Your task to perform on an android device: Go to sound settings Image 0: 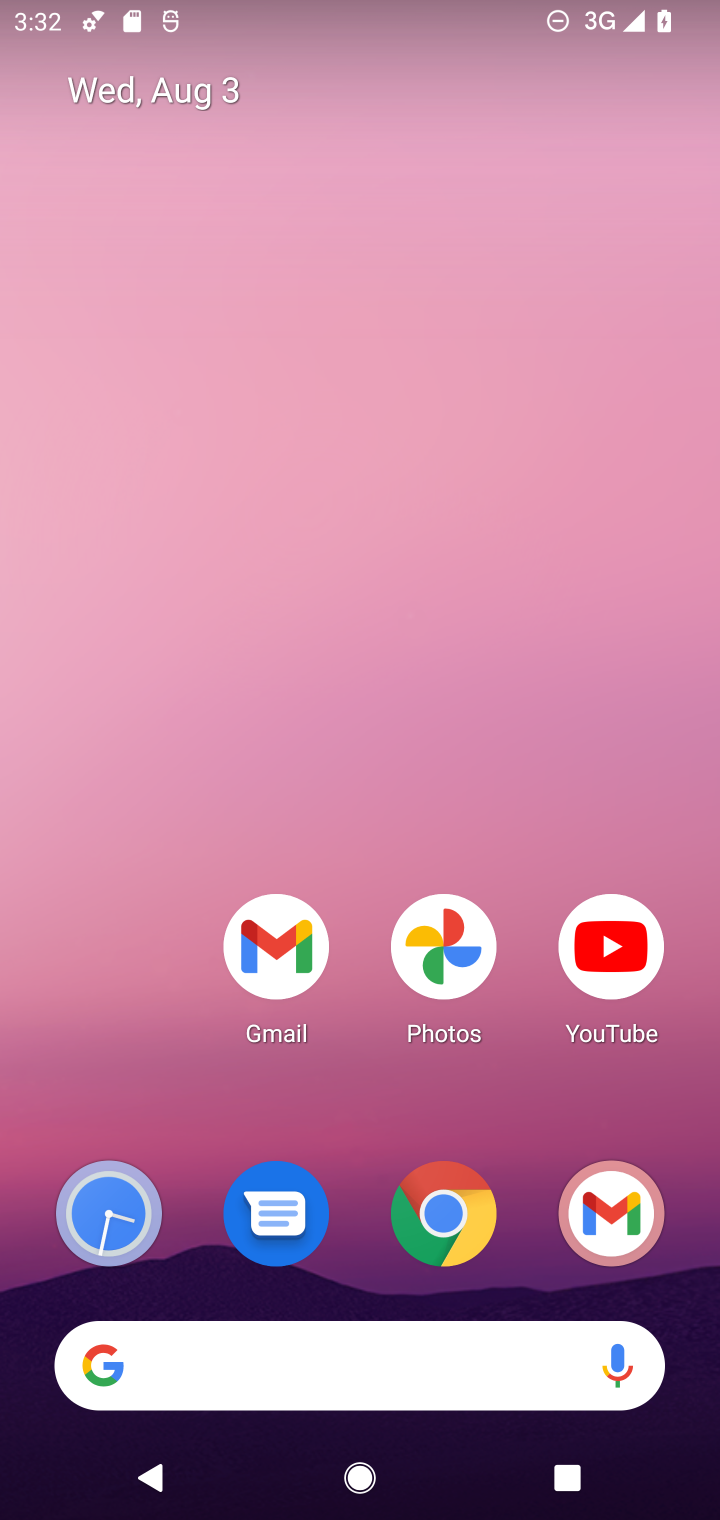
Step 0: drag from (456, 1158) to (541, 251)
Your task to perform on an android device: Go to sound settings Image 1: 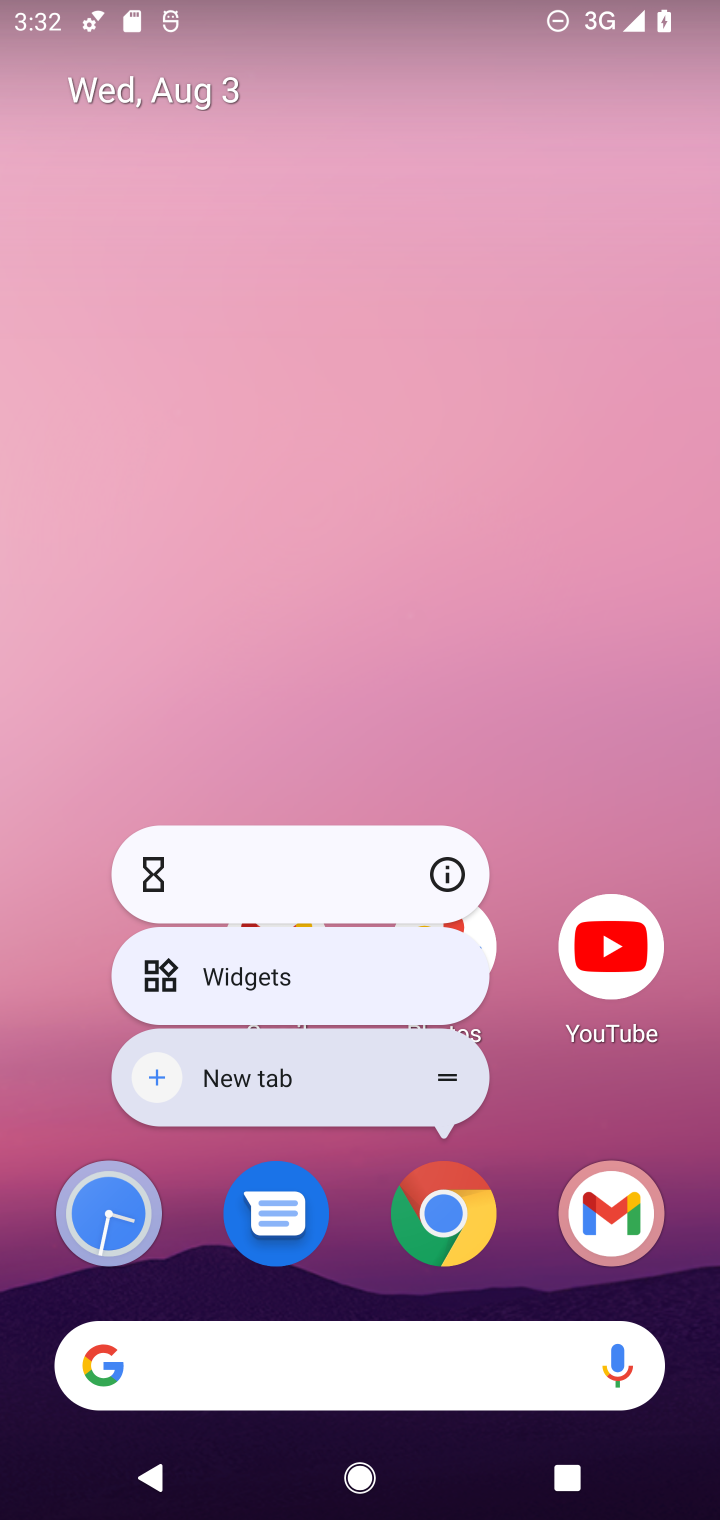
Step 1: click (403, 713)
Your task to perform on an android device: Go to sound settings Image 2: 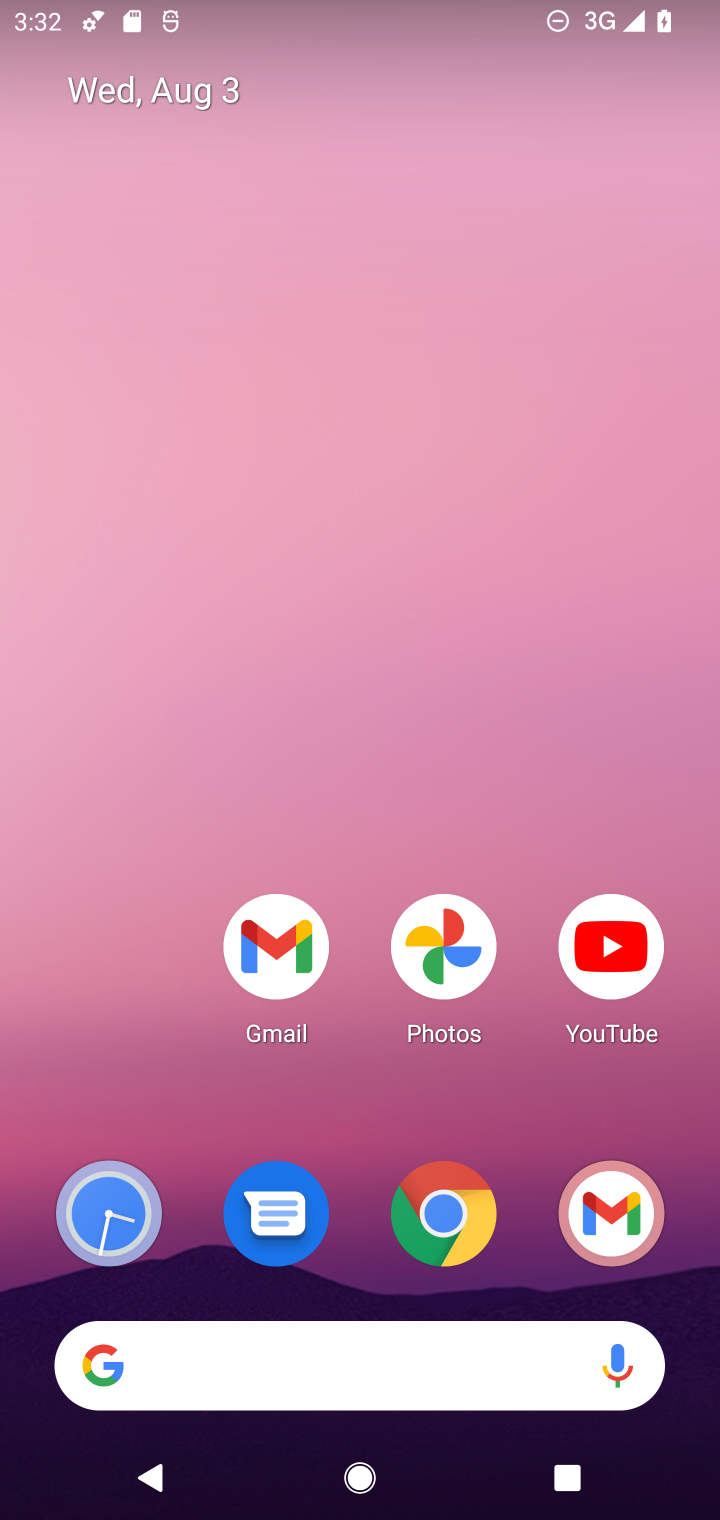
Step 2: drag from (503, 1166) to (511, 129)
Your task to perform on an android device: Go to sound settings Image 3: 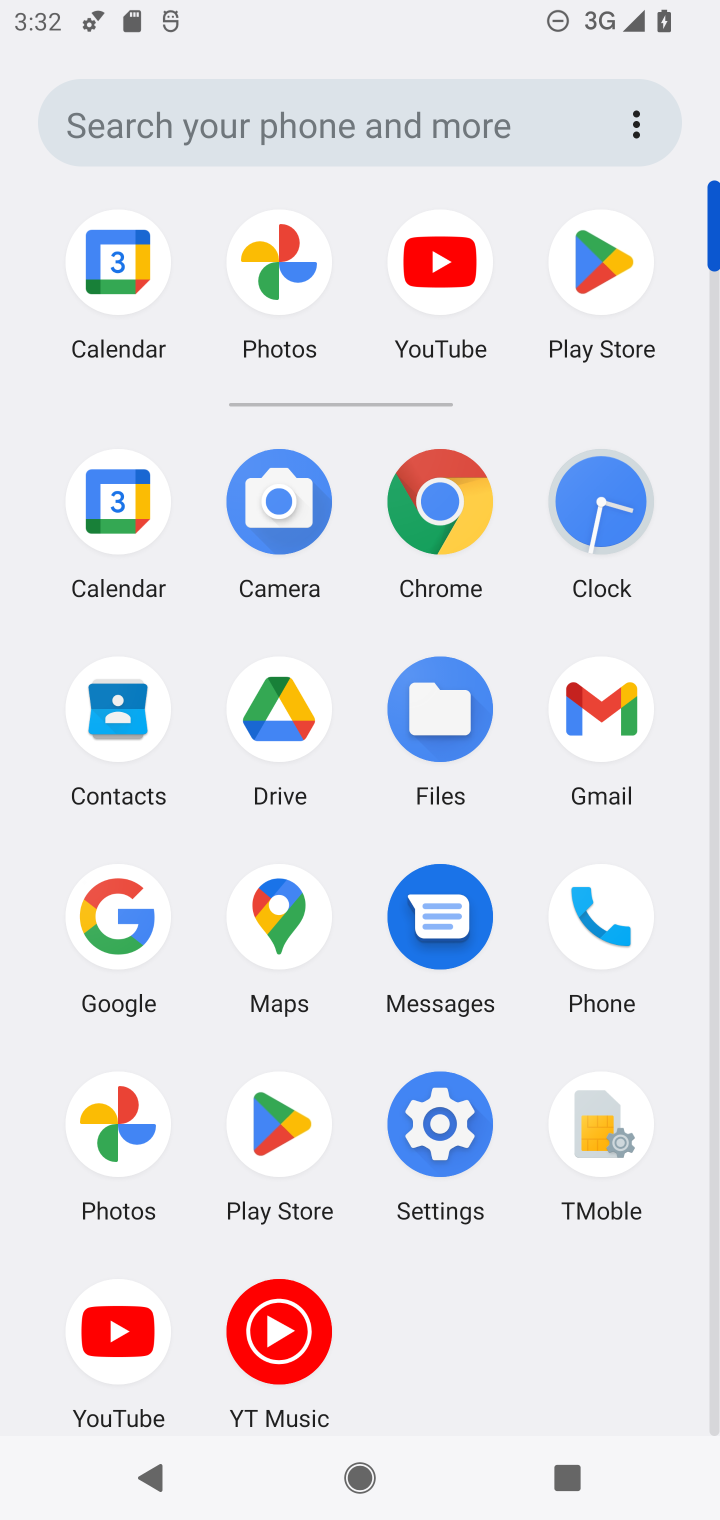
Step 3: click (418, 1123)
Your task to perform on an android device: Go to sound settings Image 4: 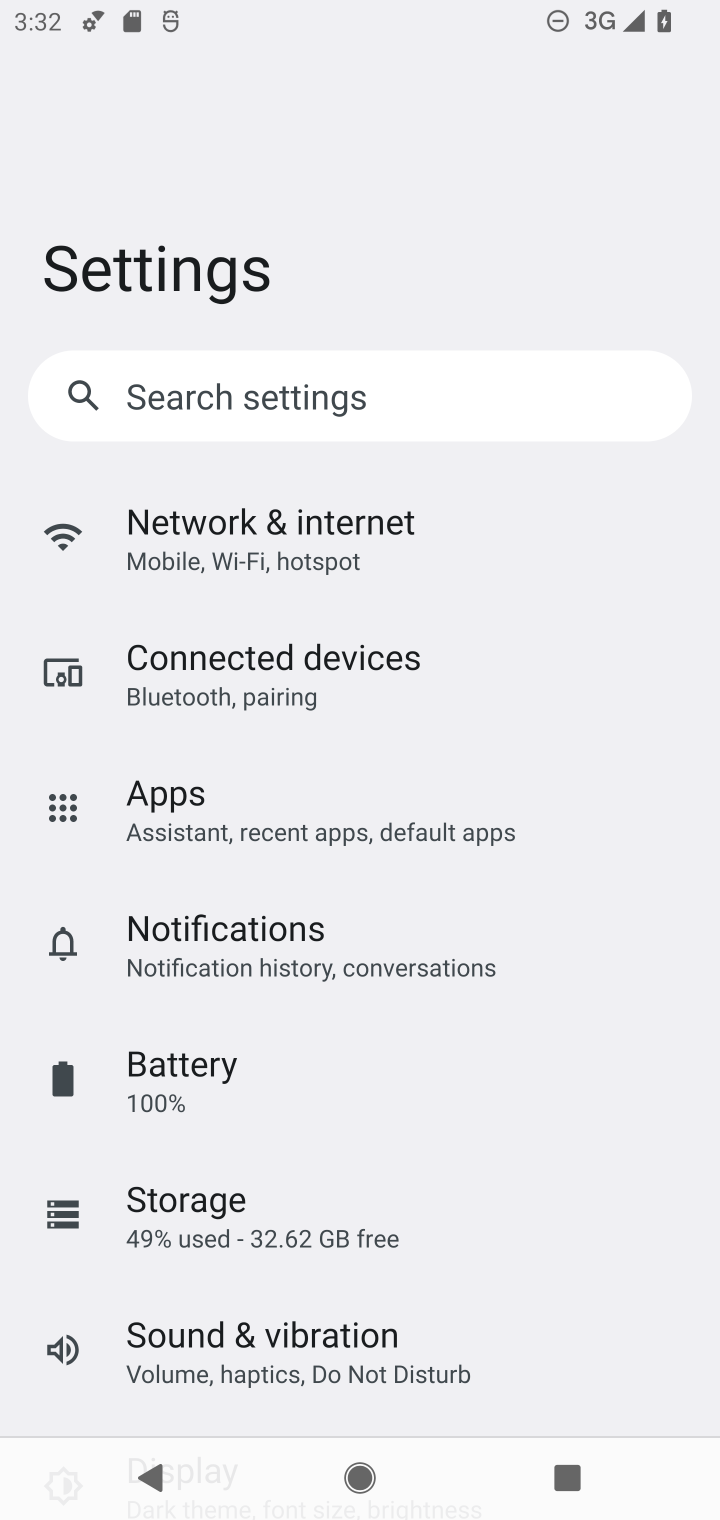
Step 4: drag from (371, 1313) to (470, 359)
Your task to perform on an android device: Go to sound settings Image 5: 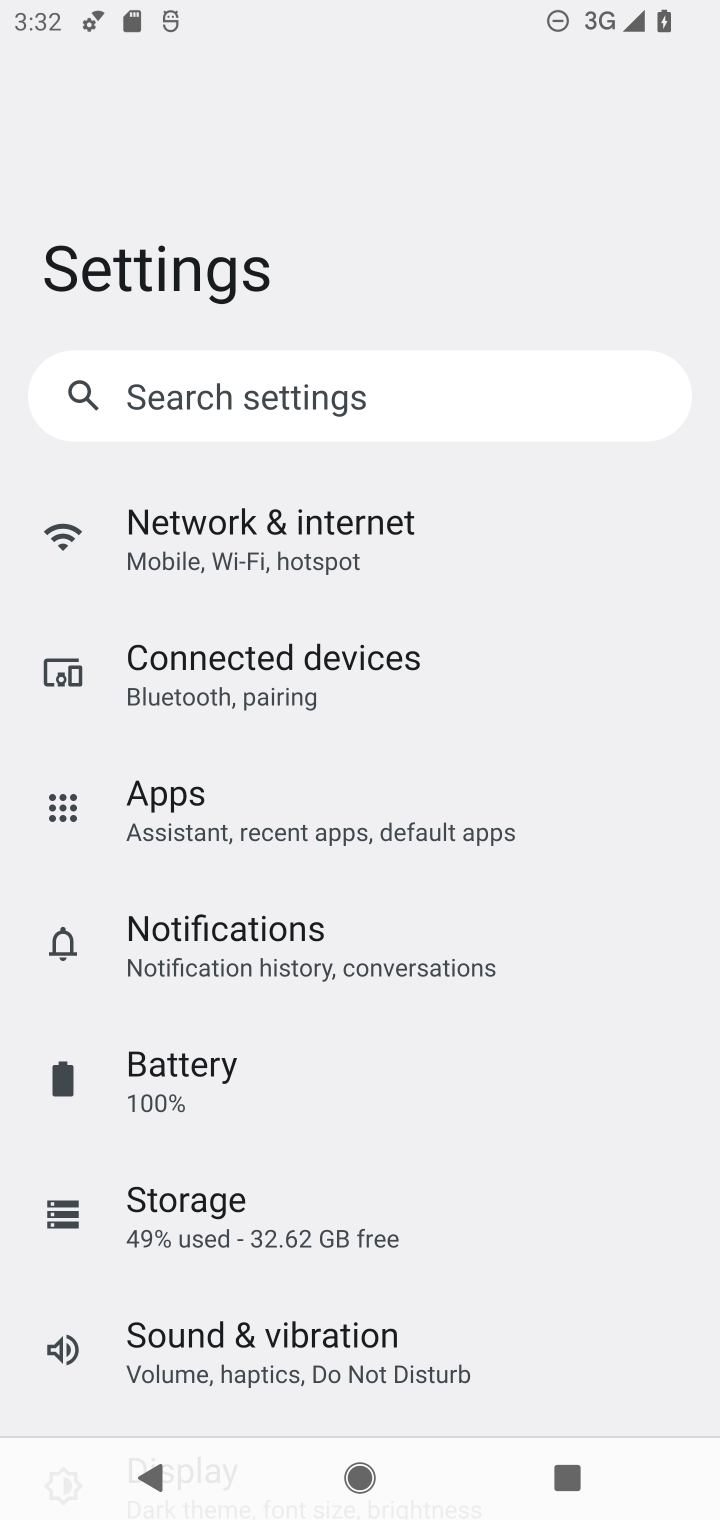
Step 5: drag from (296, 1299) to (336, 413)
Your task to perform on an android device: Go to sound settings Image 6: 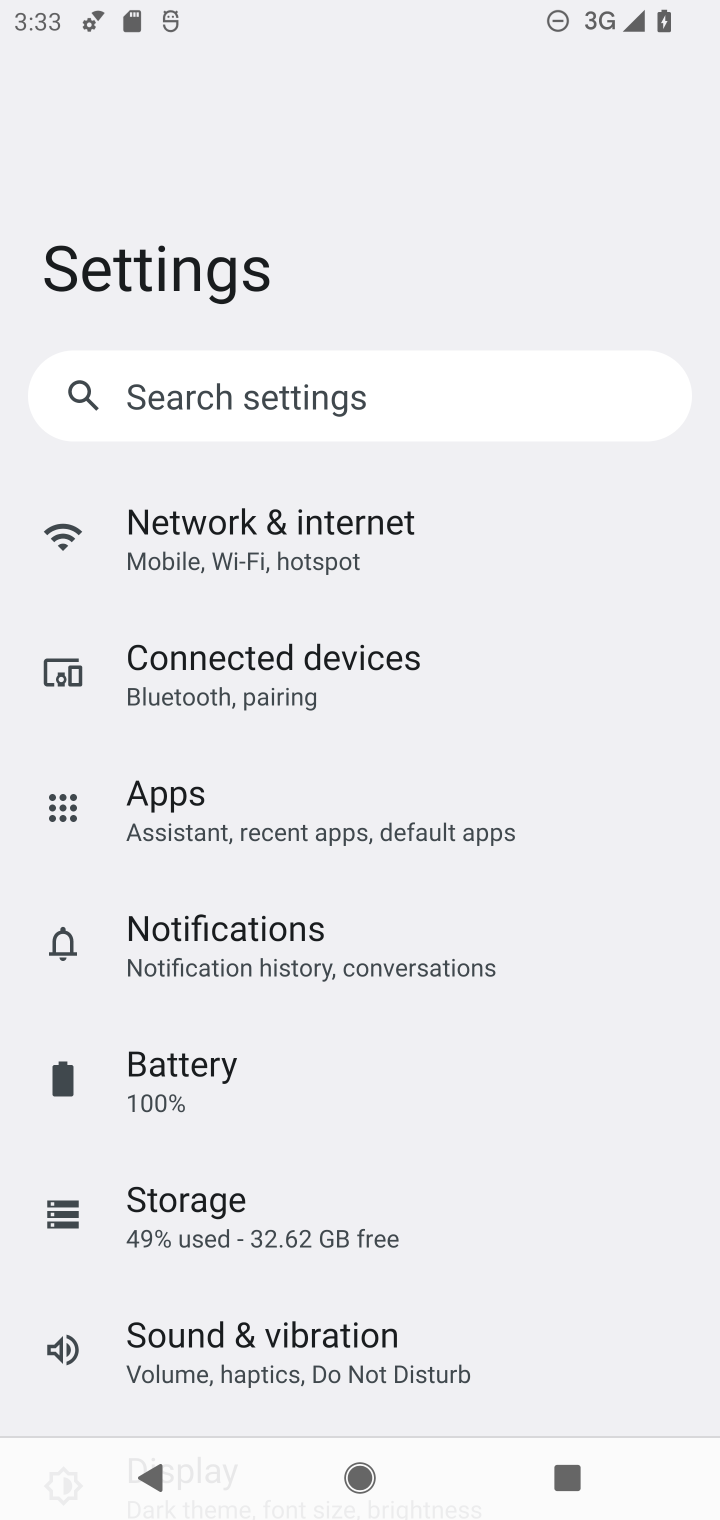
Step 6: drag from (401, 1229) to (406, 690)
Your task to perform on an android device: Go to sound settings Image 7: 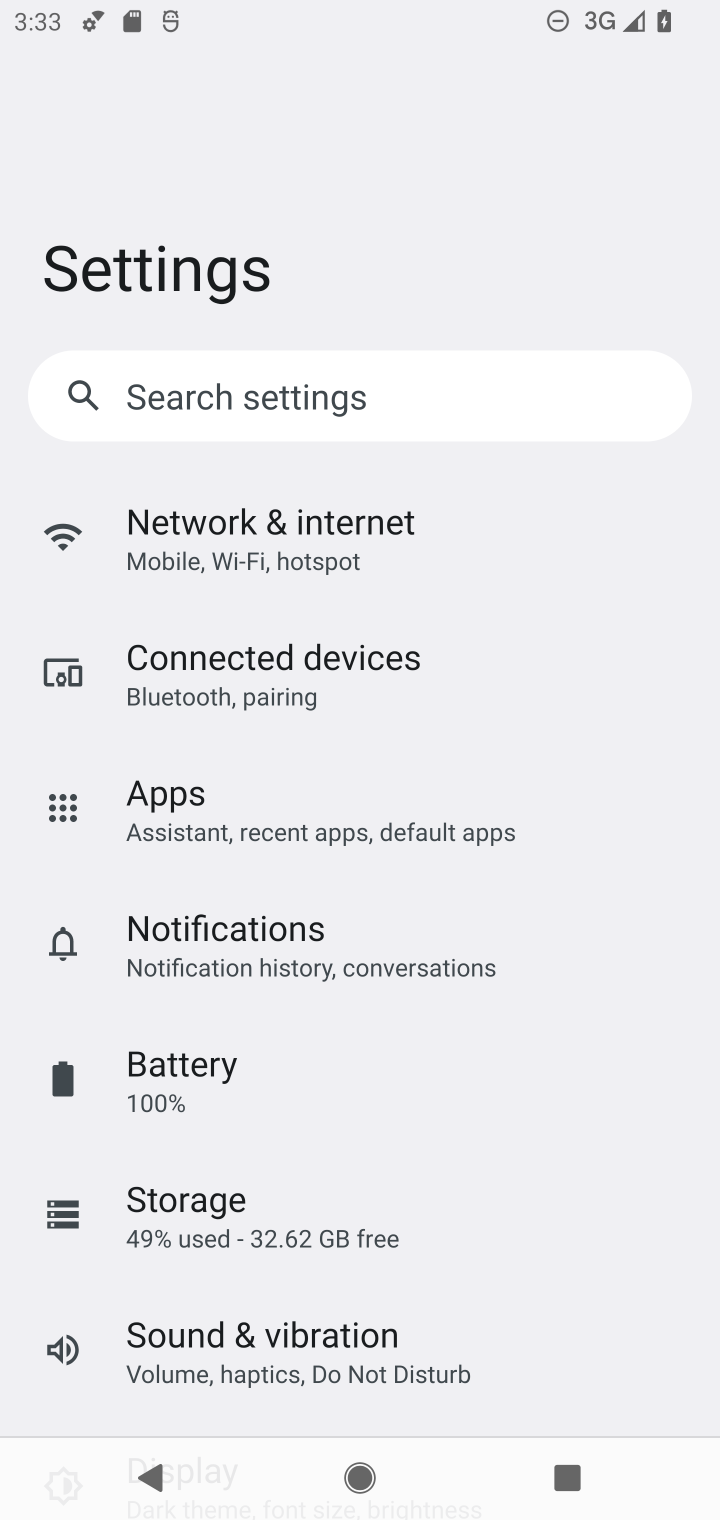
Step 7: click (272, 1358)
Your task to perform on an android device: Go to sound settings Image 8: 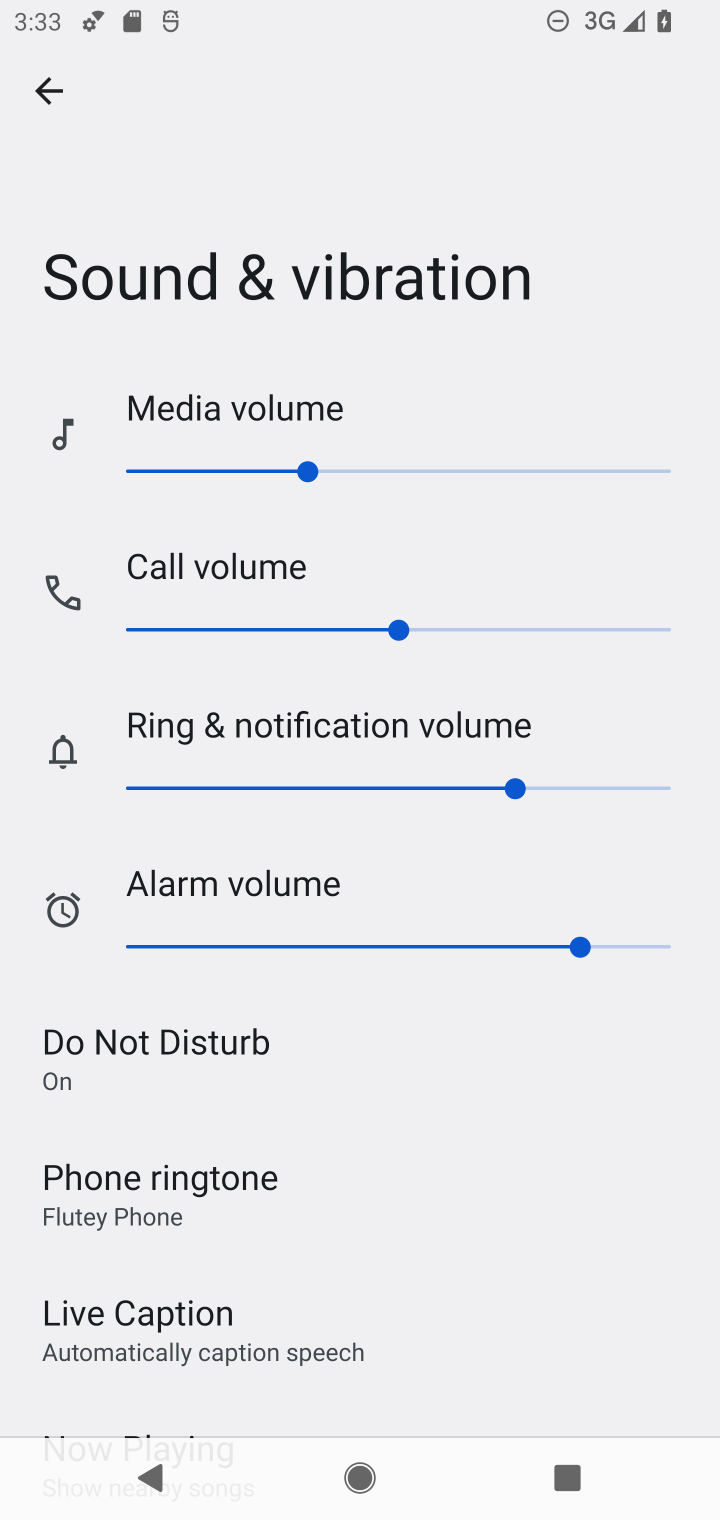
Step 8: task complete